Your task to perform on an android device: turn notification dots on Image 0: 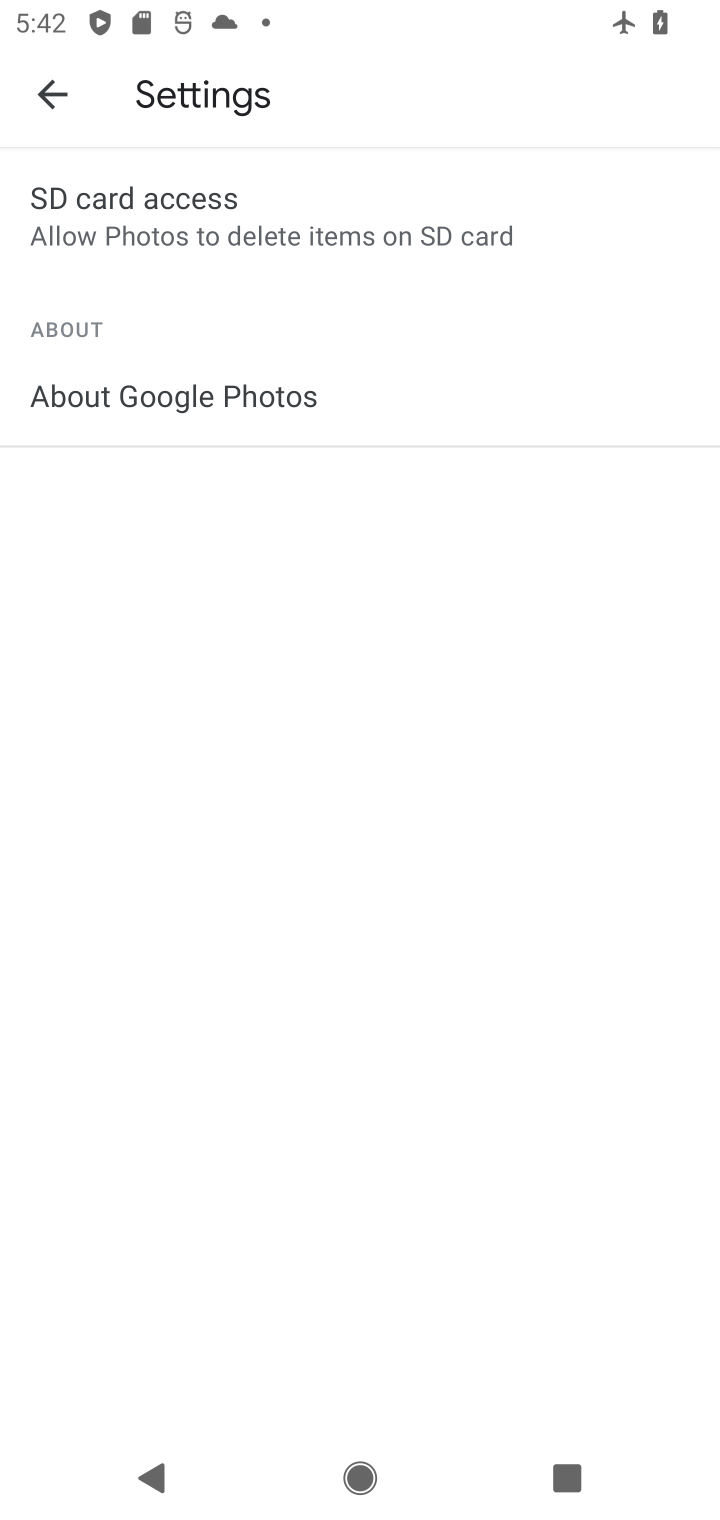
Step 0: press home button
Your task to perform on an android device: turn notification dots on Image 1: 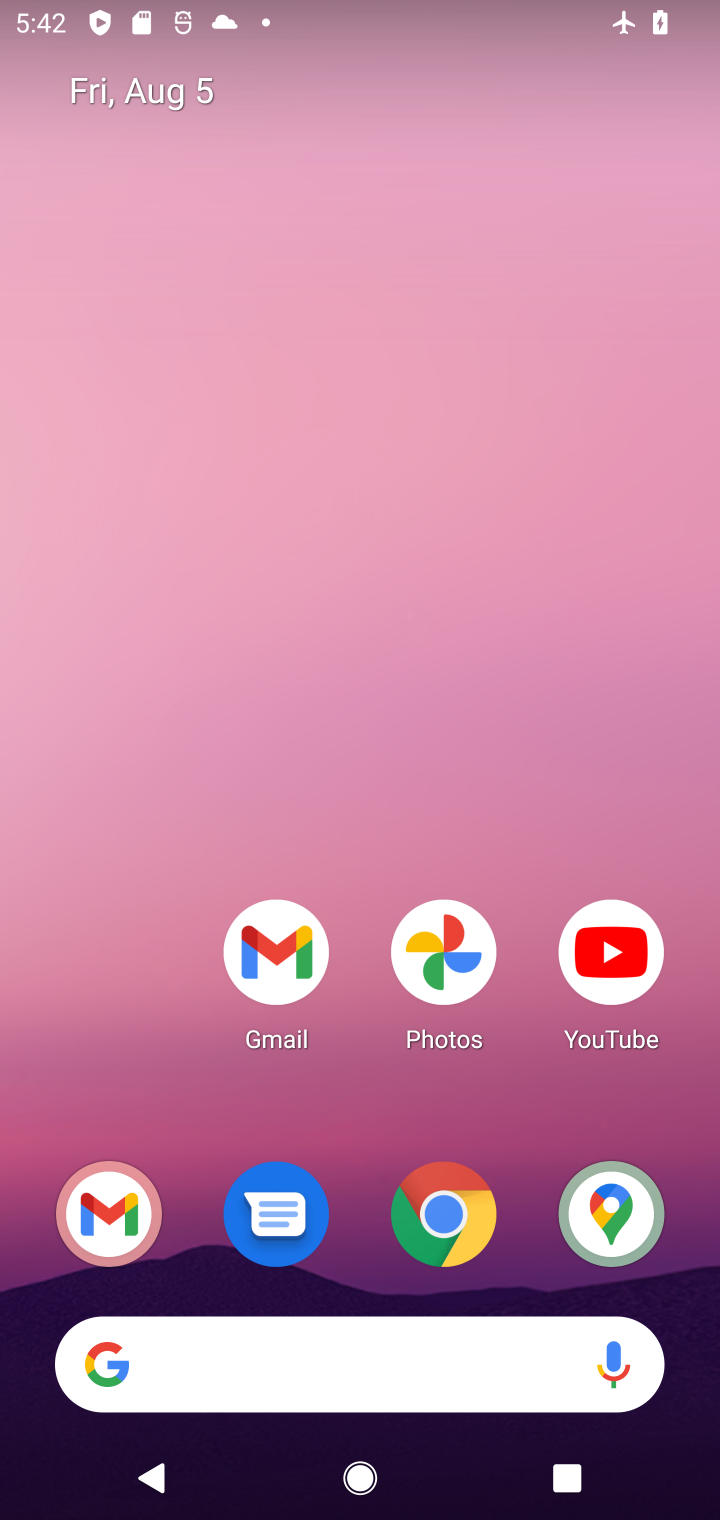
Step 1: drag from (99, 1025) to (116, 1)
Your task to perform on an android device: turn notification dots on Image 2: 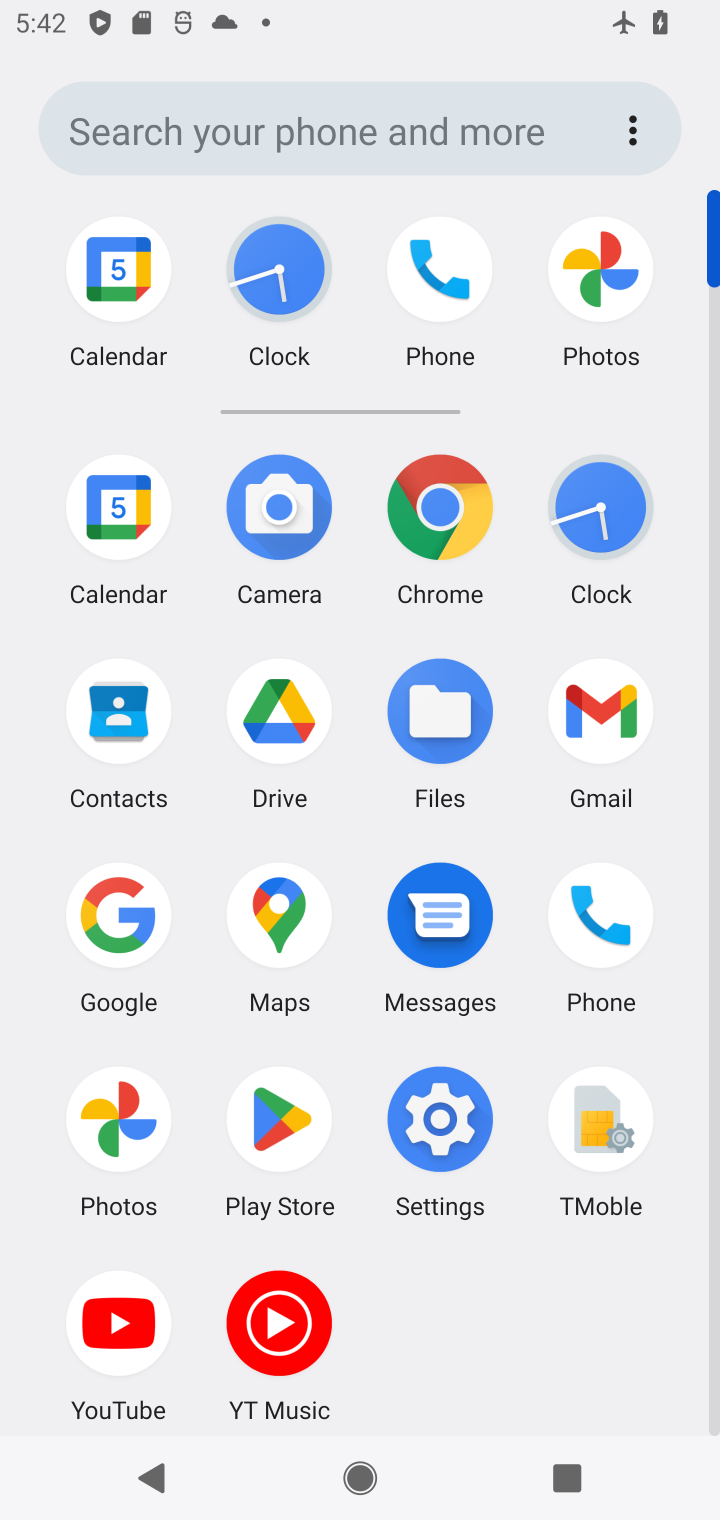
Step 2: click (437, 1113)
Your task to perform on an android device: turn notification dots on Image 3: 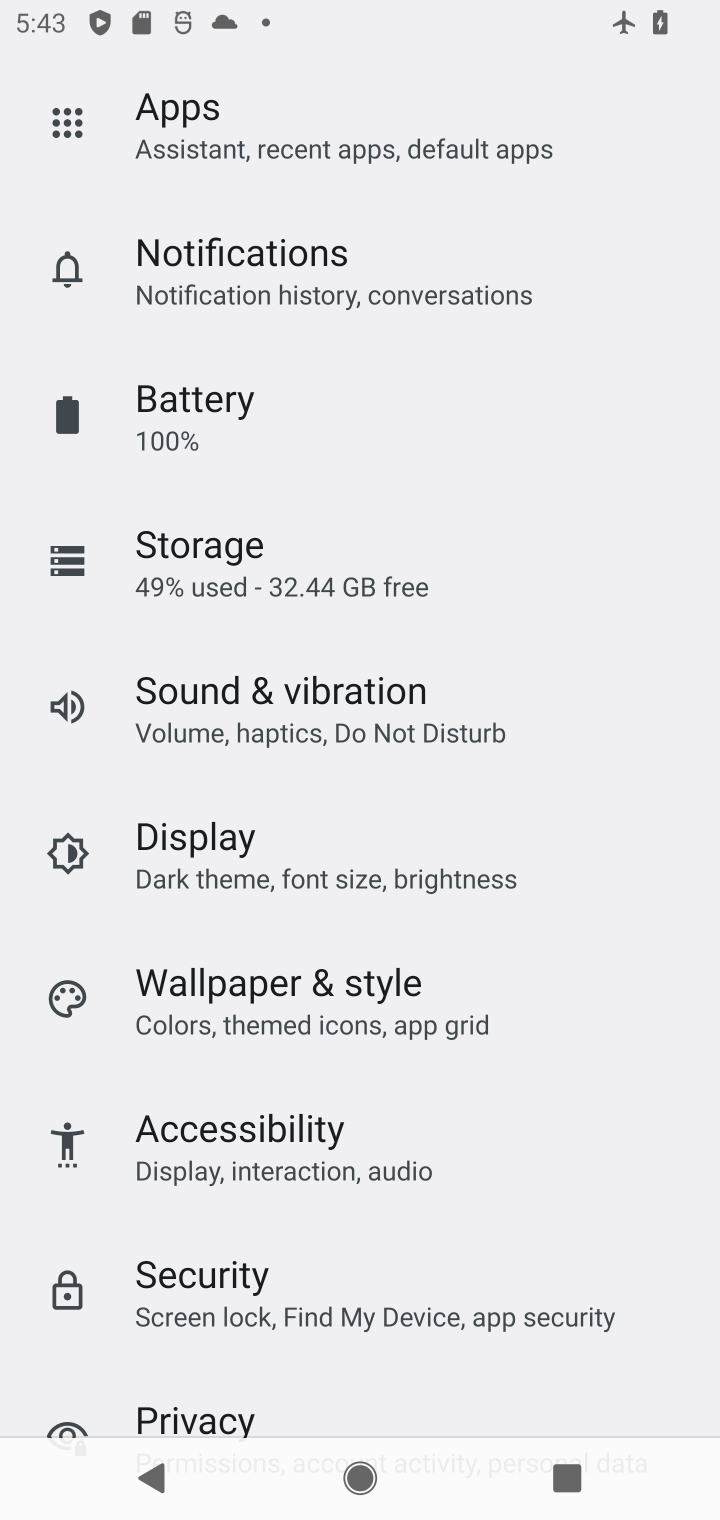
Step 3: click (365, 296)
Your task to perform on an android device: turn notification dots on Image 4: 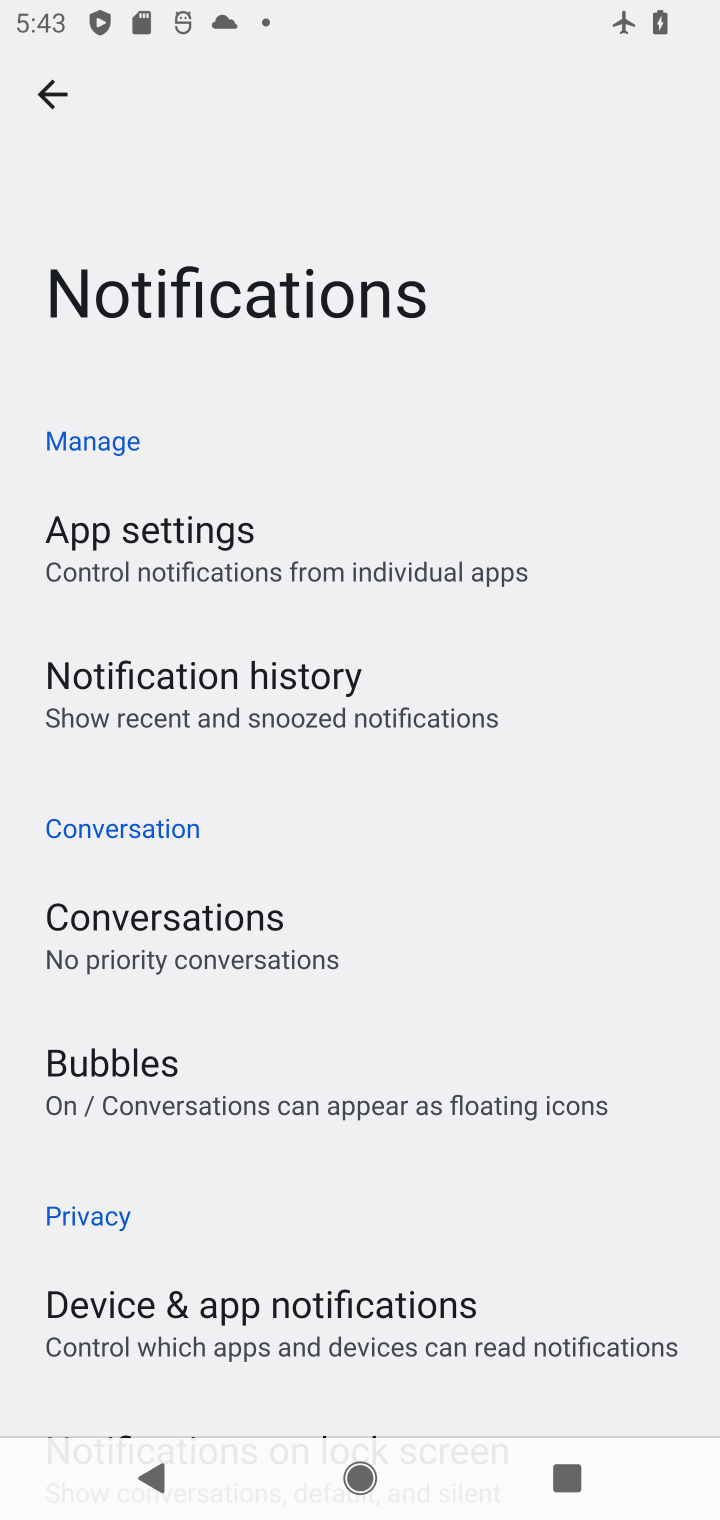
Step 4: drag from (372, 1194) to (418, 307)
Your task to perform on an android device: turn notification dots on Image 5: 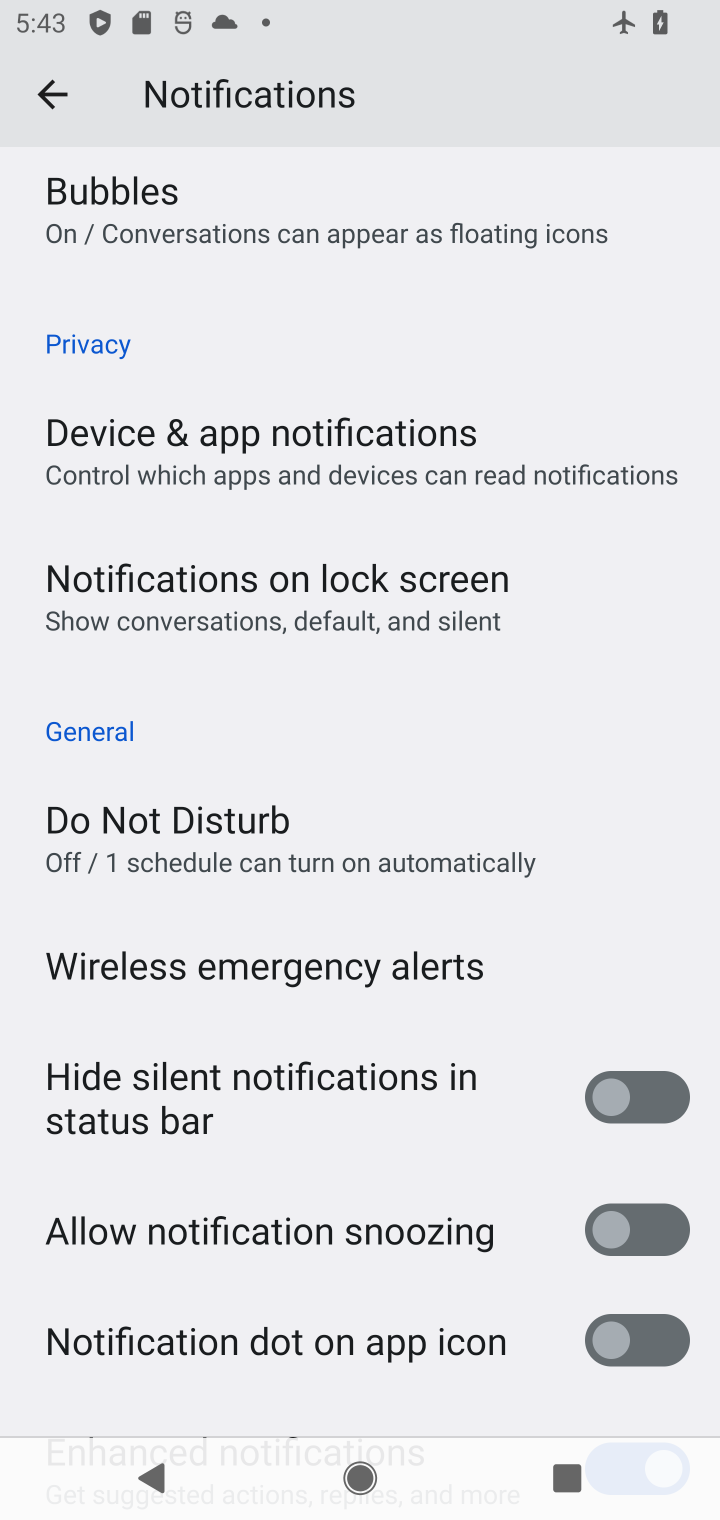
Step 5: click (640, 1348)
Your task to perform on an android device: turn notification dots on Image 6: 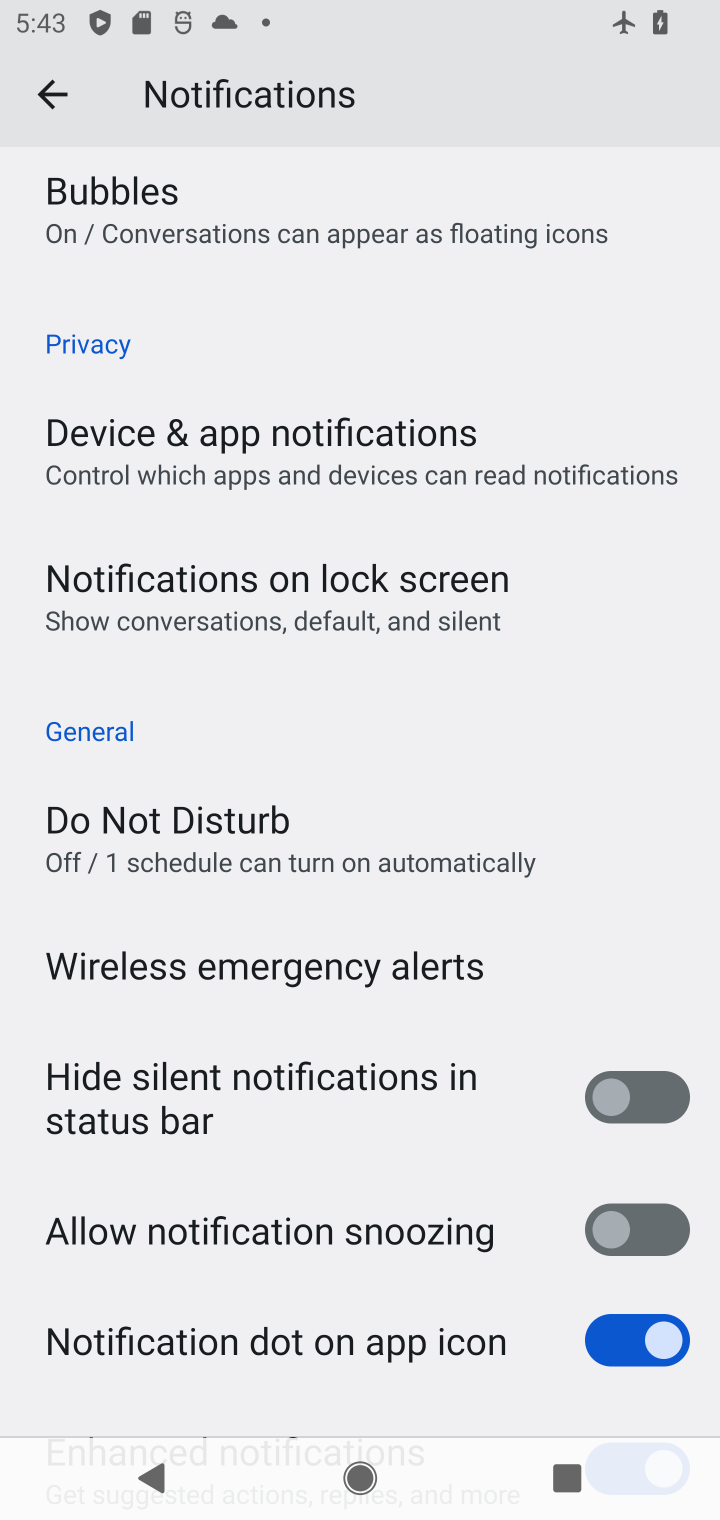
Step 6: task complete